Your task to perform on an android device: delete location history Image 0: 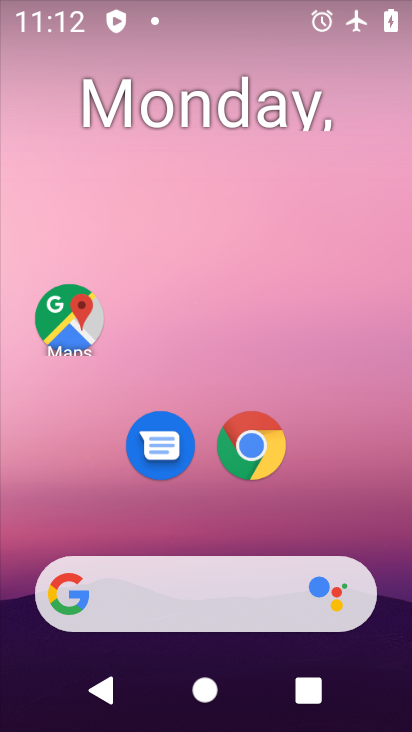
Step 0: drag from (325, 505) to (335, 62)
Your task to perform on an android device: delete location history Image 1: 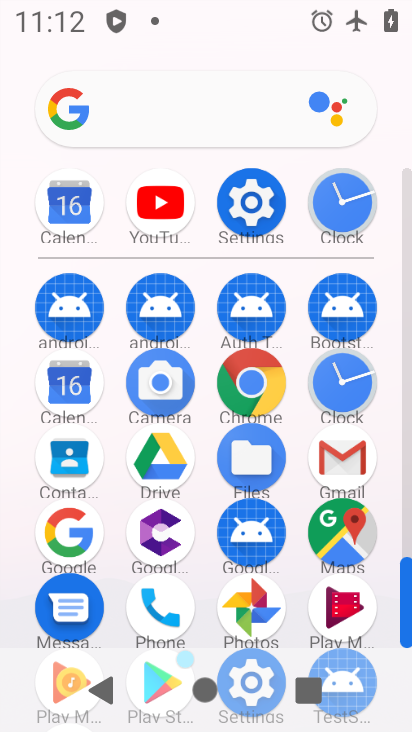
Step 1: click (355, 555)
Your task to perform on an android device: delete location history Image 2: 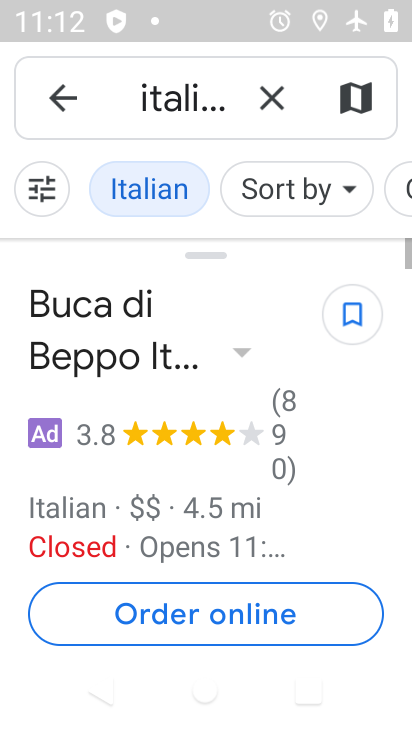
Step 2: click (65, 107)
Your task to perform on an android device: delete location history Image 3: 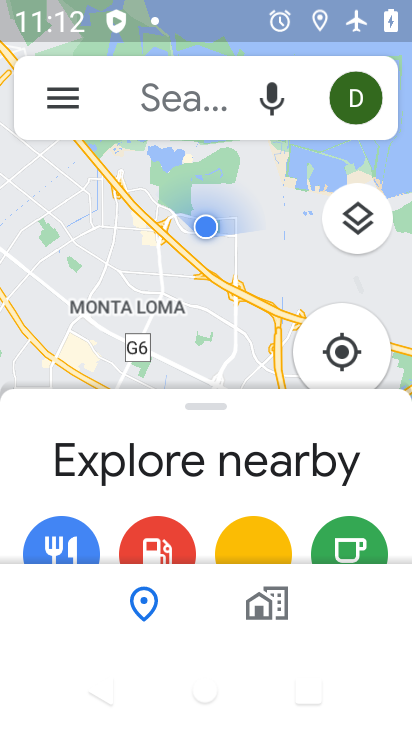
Step 3: click (62, 104)
Your task to perform on an android device: delete location history Image 4: 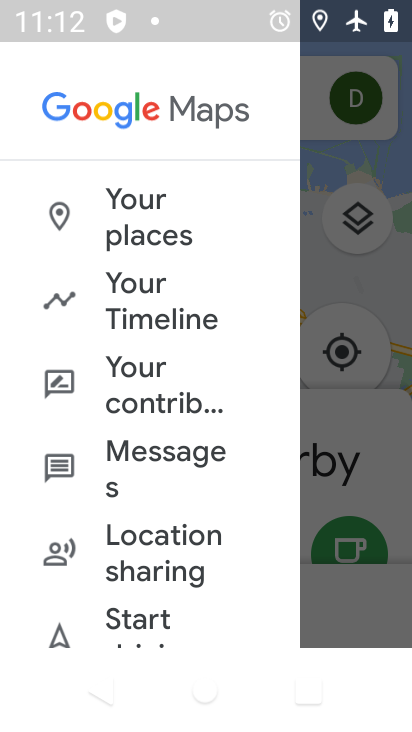
Step 4: drag from (144, 612) to (172, 378)
Your task to perform on an android device: delete location history Image 5: 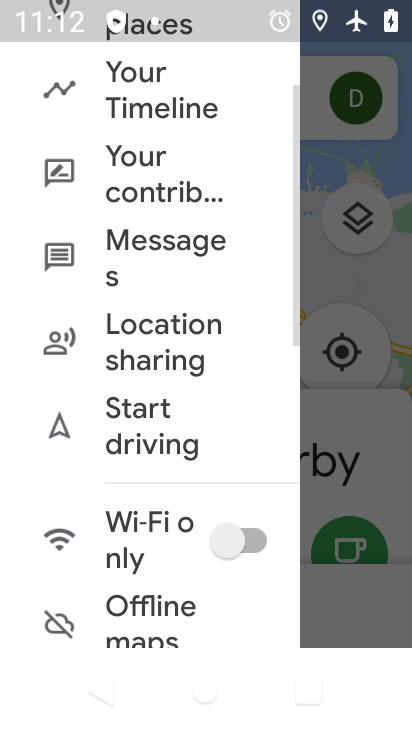
Step 5: drag from (149, 588) to (130, 310)
Your task to perform on an android device: delete location history Image 6: 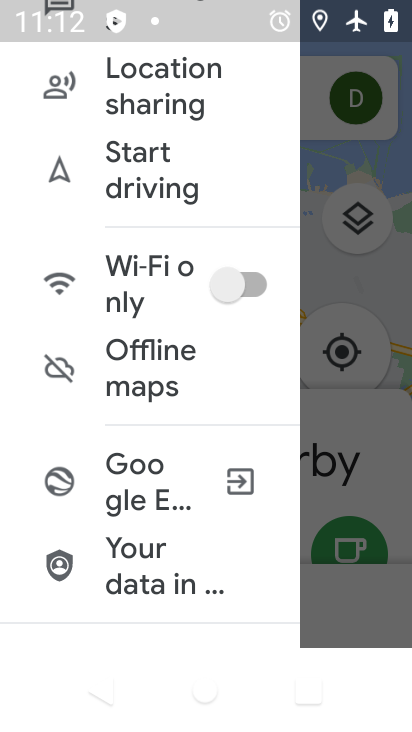
Step 6: drag from (153, 588) to (150, 200)
Your task to perform on an android device: delete location history Image 7: 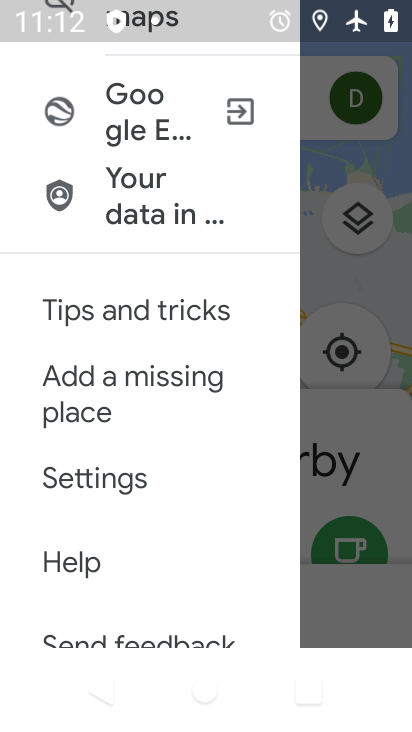
Step 7: click (91, 479)
Your task to perform on an android device: delete location history Image 8: 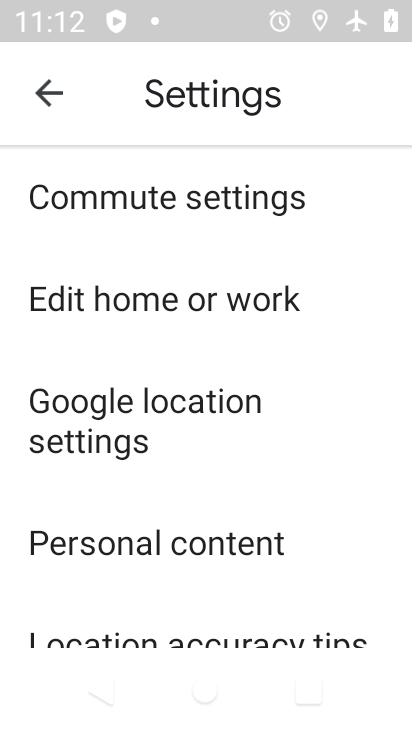
Step 8: drag from (146, 574) to (153, 264)
Your task to perform on an android device: delete location history Image 9: 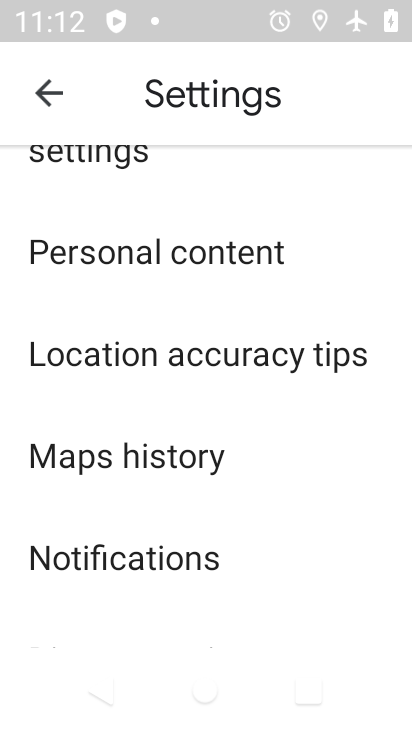
Step 9: click (201, 452)
Your task to perform on an android device: delete location history Image 10: 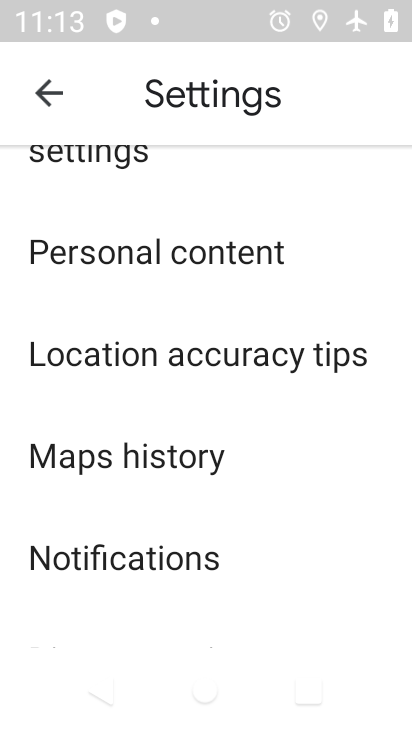
Step 10: click (201, 452)
Your task to perform on an android device: delete location history Image 11: 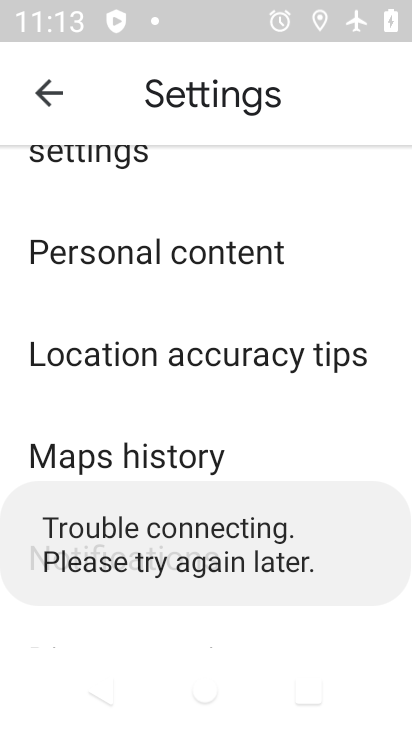
Step 11: click (87, 462)
Your task to perform on an android device: delete location history Image 12: 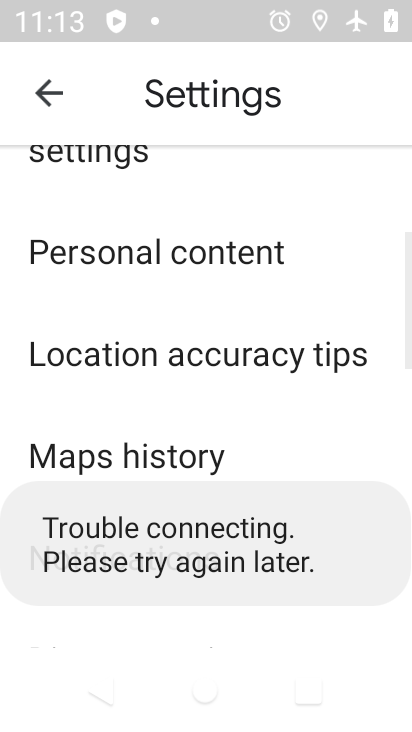
Step 12: drag from (83, 647) to (111, 346)
Your task to perform on an android device: delete location history Image 13: 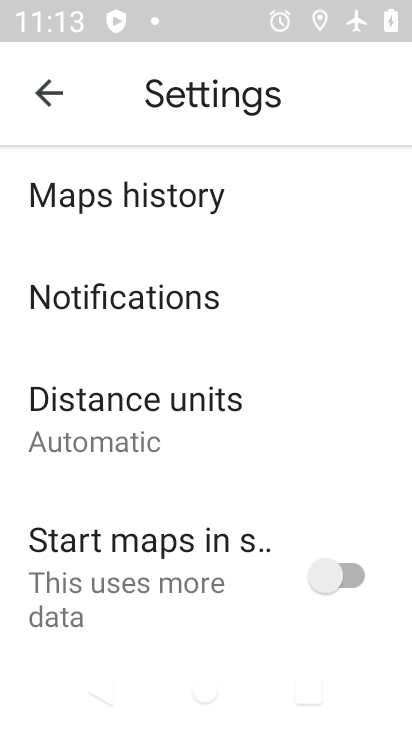
Step 13: click (111, 202)
Your task to perform on an android device: delete location history Image 14: 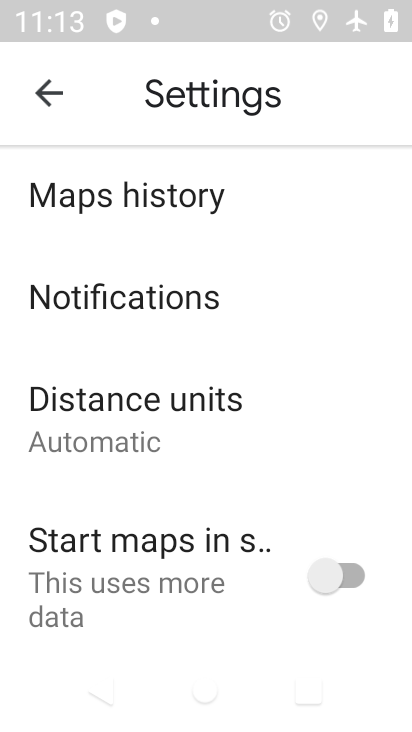
Step 14: task complete